Your task to perform on an android device: open a new tab in the chrome app Image 0: 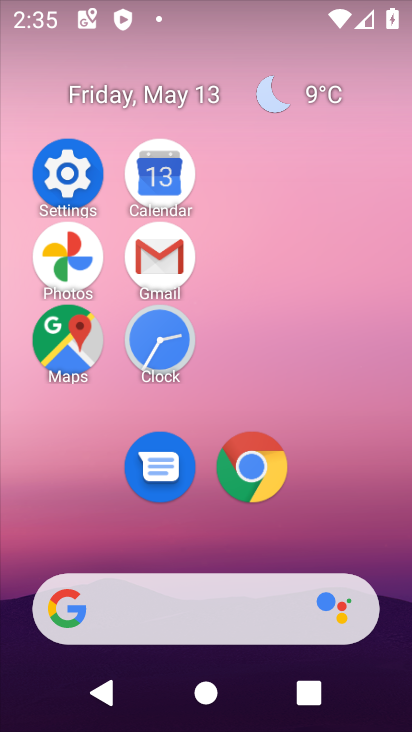
Step 0: click (248, 462)
Your task to perform on an android device: open a new tab in the chrome app Image 1: 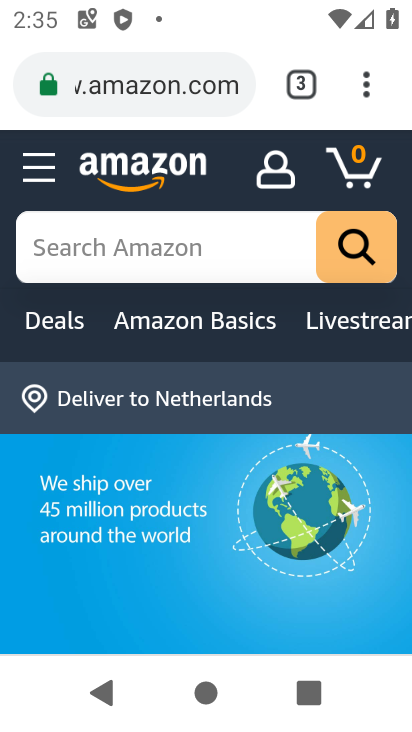
Step 1: click (302, 97)
Your task to perform on an android device: open a new tab in the chrome app Image 2: 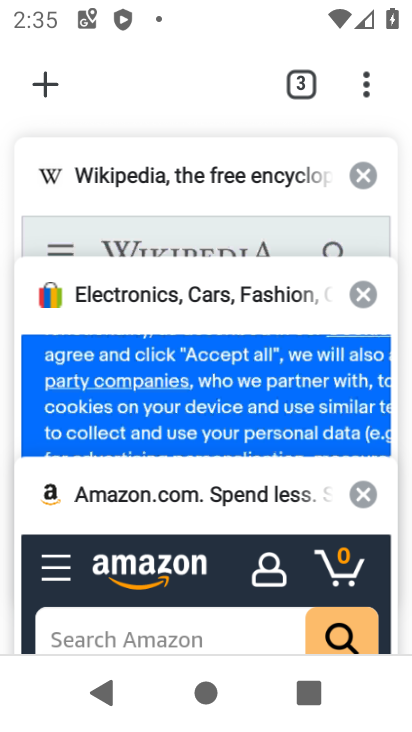
Step 2: click (42, 90)
Your task to perform on an android device: open a new tab in the chrome app Image 3: 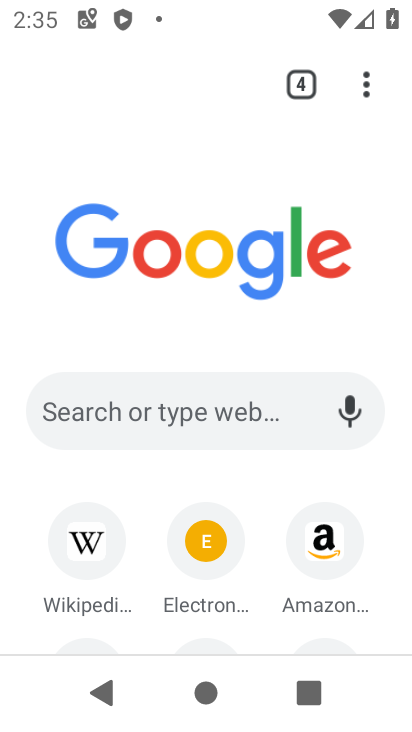
Step 3: task complete